Your task to perform on an android device: Open Google Maps and go to "Timeline" Image 0: 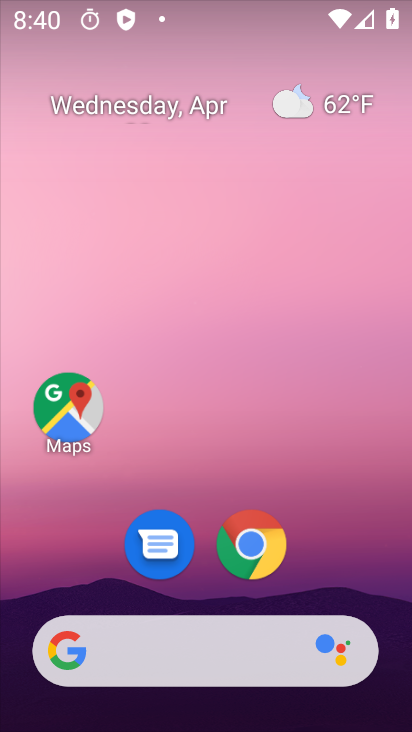
Step 0: click (74, 416)
Your task to perform on an android device: Open Google Maps and go to "Timeline" Image 1: 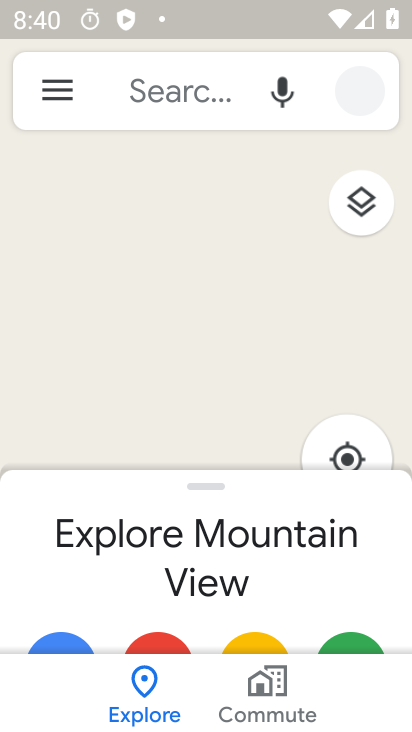
Step 1: click (56, 87)
Your task to perform on an android device: Open Google Maps and go to "Timeline" Image 2: 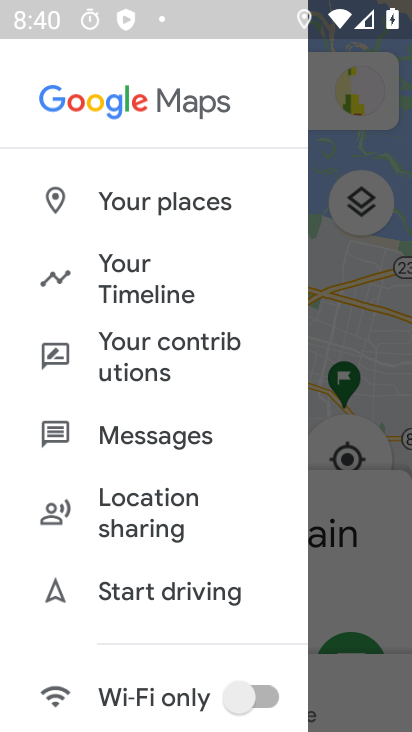
Step 2: click (106, 280)
Your task to perform on an android device: Open Google Maps and go to "Timeline" Image 3: 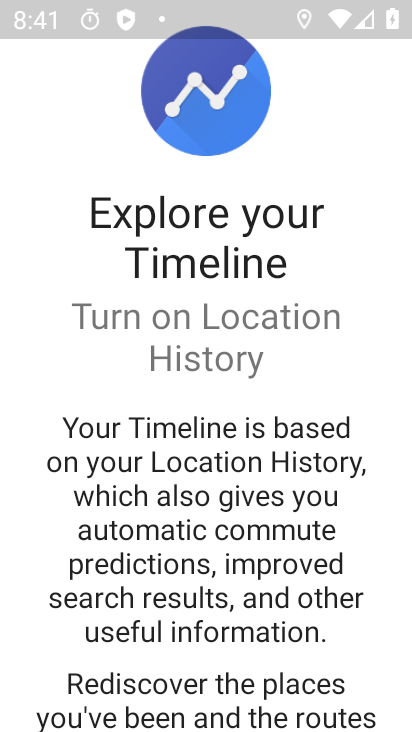
Step 3: task complete